Your task to perform on an android device: Open the calendar and show me this week's events? Image 0: 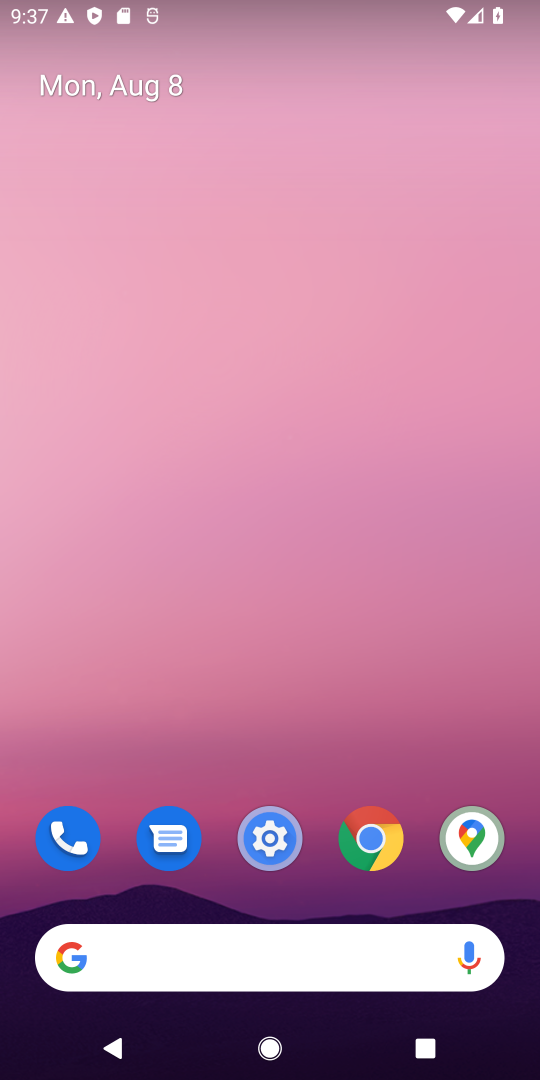
Step 0: press home button
Your task to perform on an android device: Open the calendar and show me this week's events? Image 1: 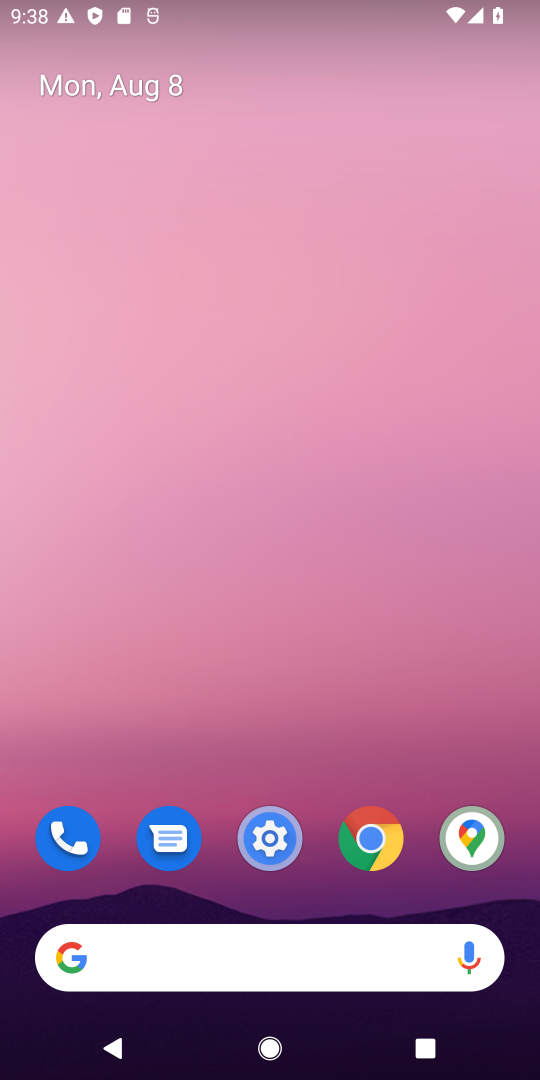
Step 1: drag from (308, 814) to (271, 130)
Your task to perform on an android device: Open the calendar and show me this week's events? Image 2: 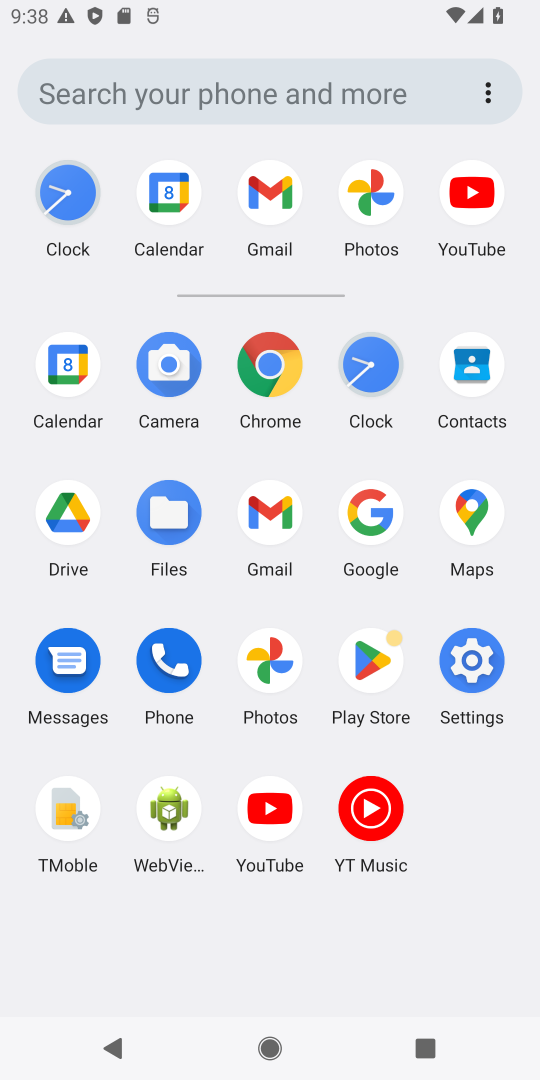
Step 2: click (173, 212)
Your task to perform on an android device: Open the calendar and show me this week's events? Image 3: 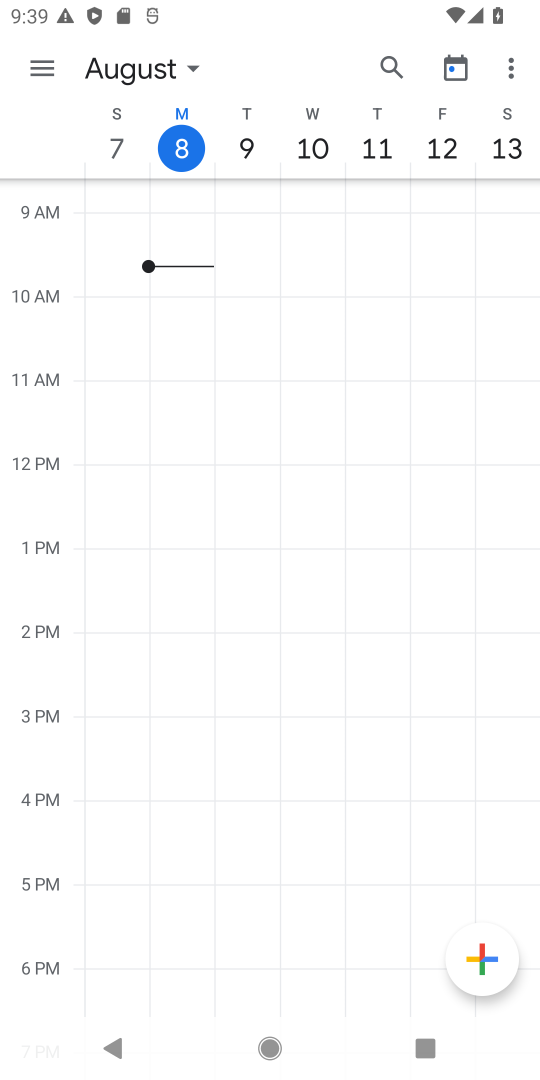
Step 3: click (47, 67)
Your task to perform on an android device: Open the calendar and show me this week's events? Image 4: 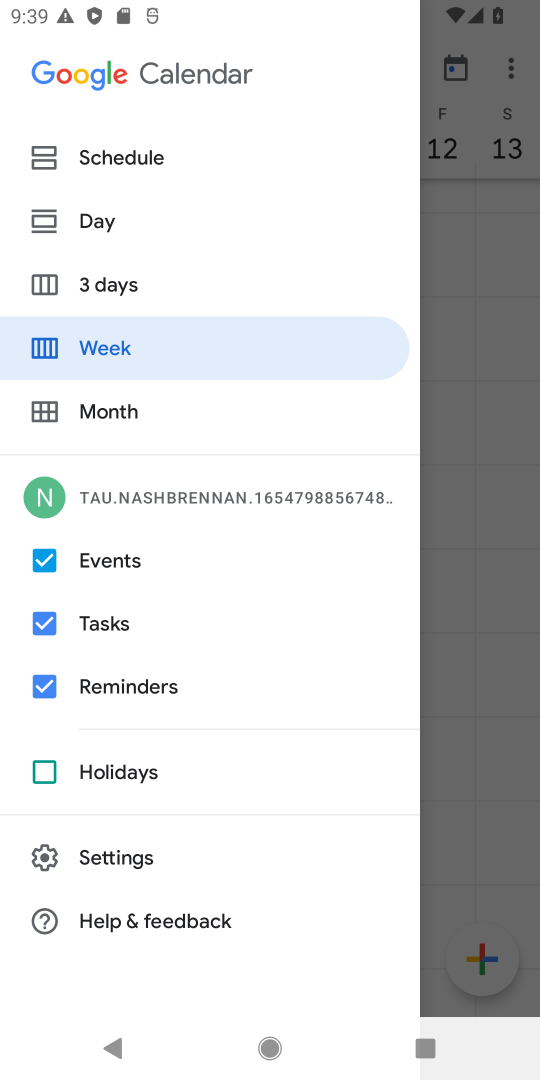
Step 4: click (135, 344)
Your task to perform on an android device: Open the calendar and show me this week's events? Image 5: 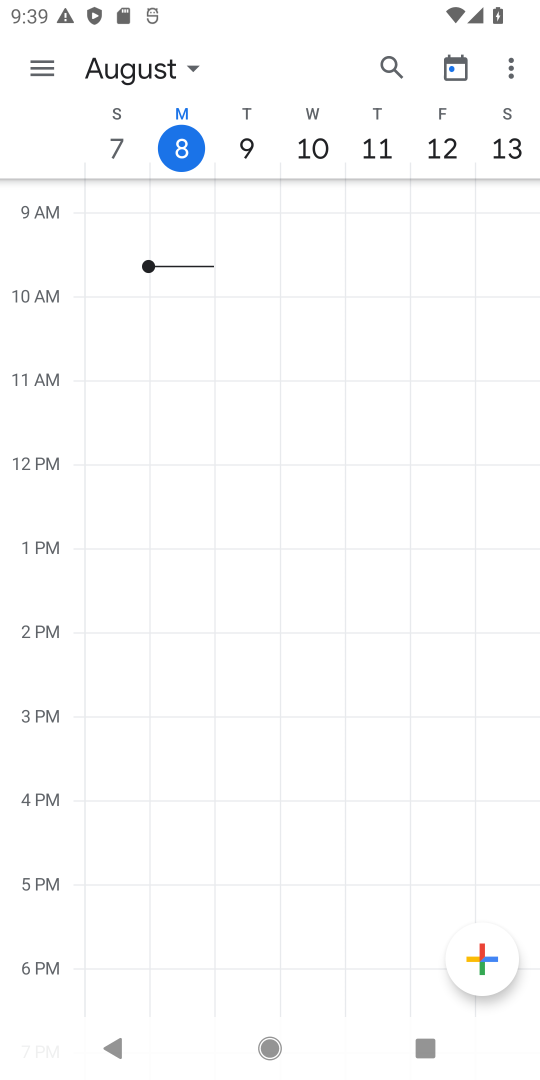
Step 5: task complete